Your task to perform on an android device: Go to Amazon Image 0: 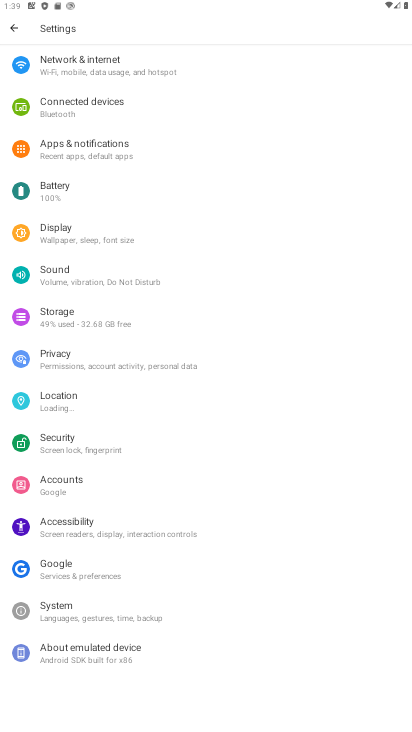
Step 0: press home button
Your task to perform on an android device: Go to Amazon Image 1: 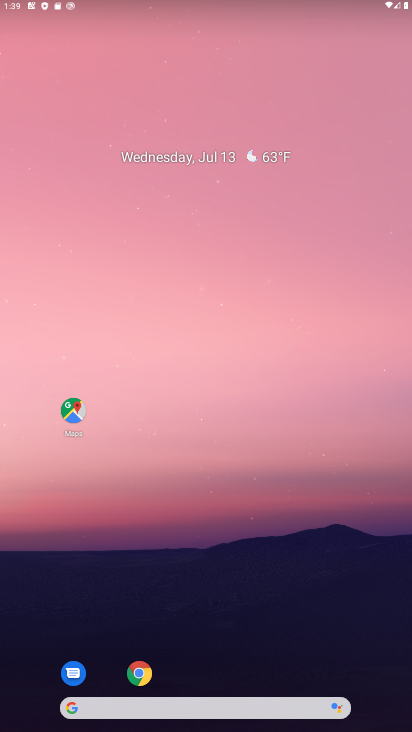
Step 1: click (232, 268)
Your task to perform on an android device: Go to Amazon Image 2: 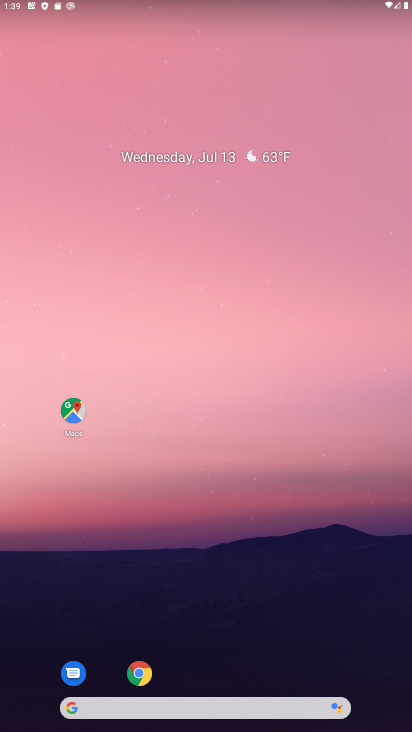
Step 2: drag from (198, 668) to (208, 256)
Your task to perform on an android device: Go to Amazon Image 3: 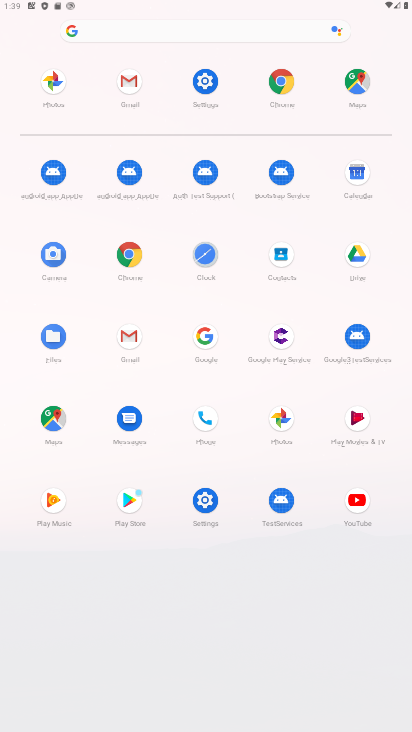
Step 3: click (281, 74)
Your task to perform on an android device: Go to Amazon Image 4: 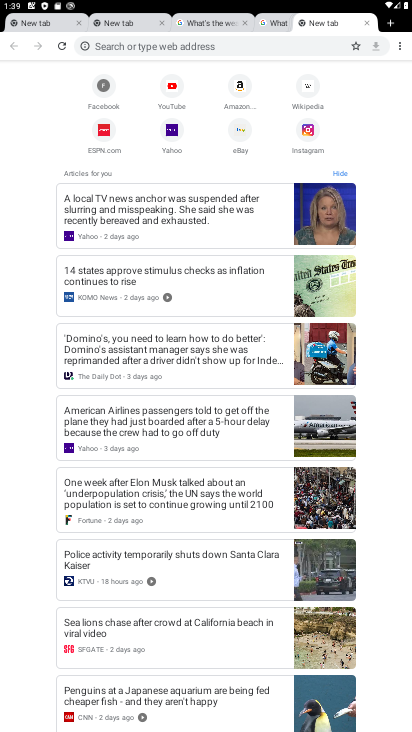
Step 4: click (399, 36)
Your task to perform on an android device: Go to Amazon Image 5: 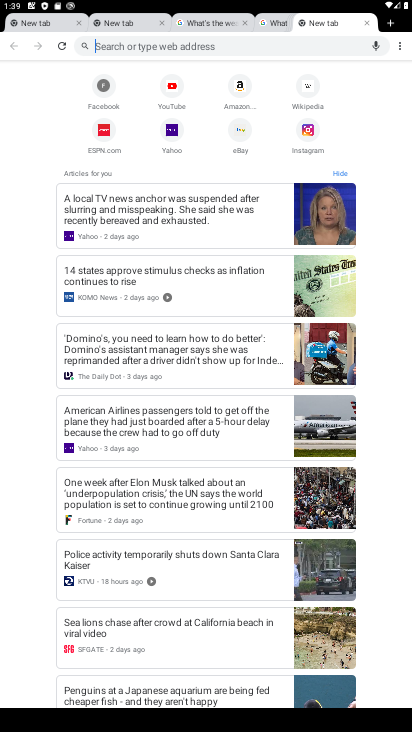
Step 5: click (399, 42)
Your task to perform on an android device: Go to Amazon Image 6: 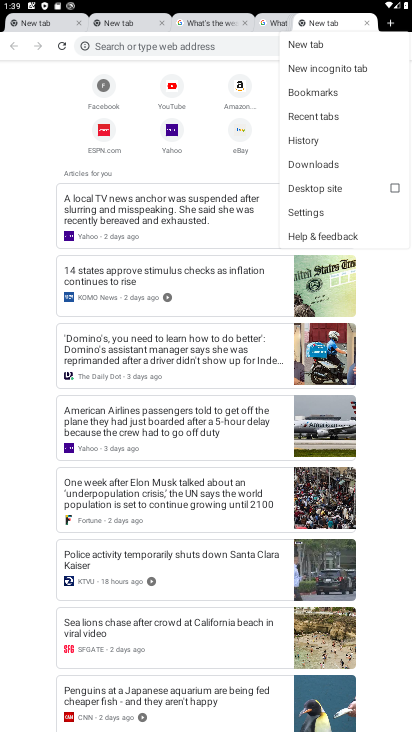
Step 6: click (309, 46)
Your task to perform on an android device: Go to Amazon Image 7: 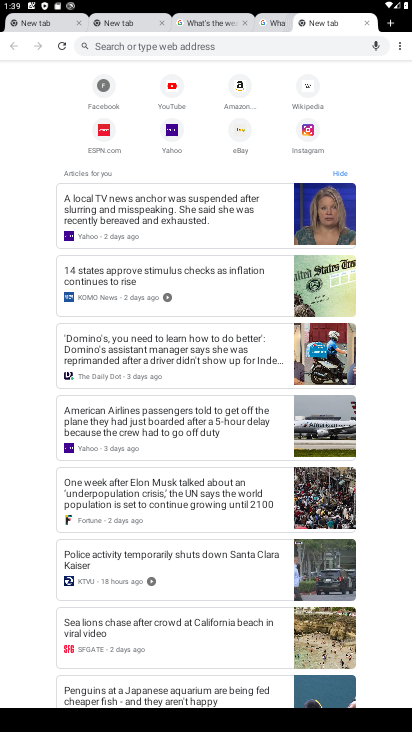
Step 7: click (231, 78)
Your task to perform on an android device: Go to Amazon Image 8: 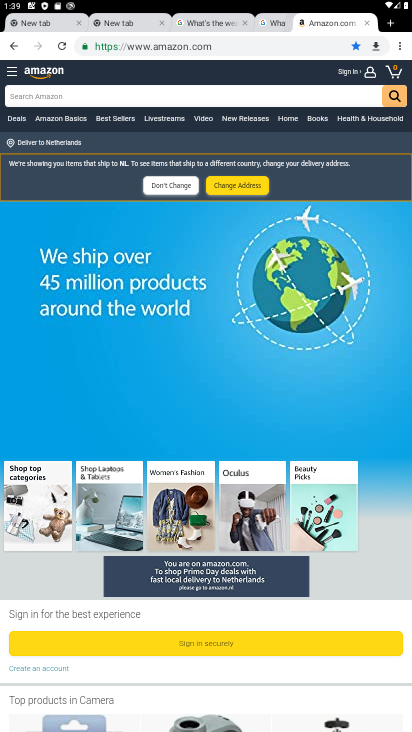
Step 8: task complete